Your task to perform on an android device: open the mobile data screen to see how much data has been used Image 0: 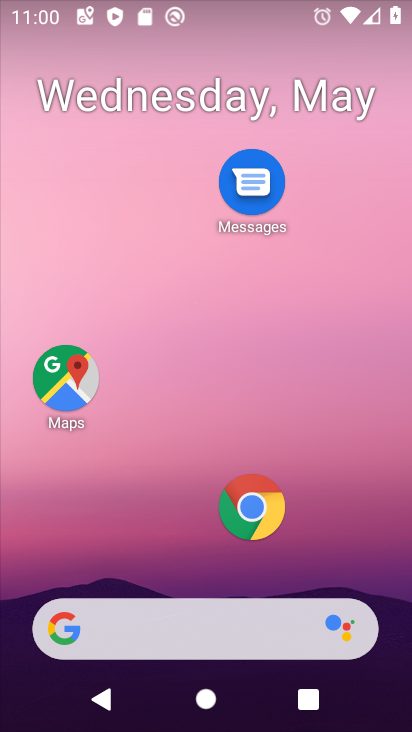
Step 0: press home button
Your task to perform on an android device: open the mobile data screen to see how much data has been used Image 1: 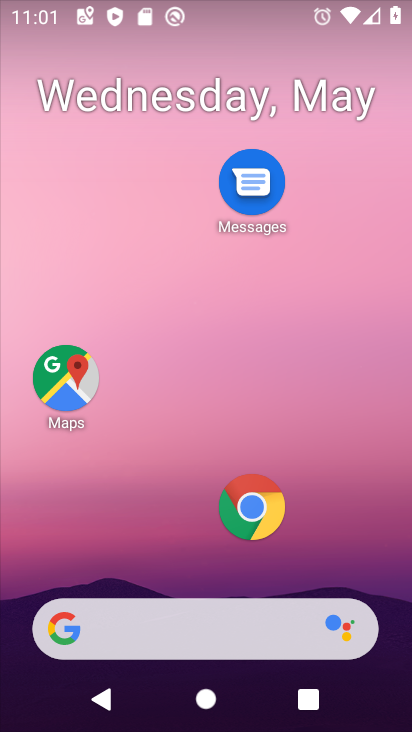
Step 1: drag from (185, 573) to (208, 313)
Your task to perform on an android device: open the mobile data screen to see how much data has been used Image 2: 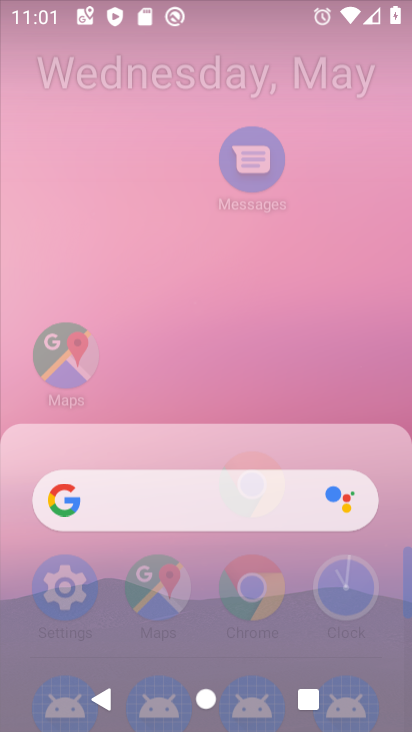
Step 2: drag from (210, 172) to (204, 72)
Your task to perform on an android device: open the mobile data screen to see how much data has been used Image 3: 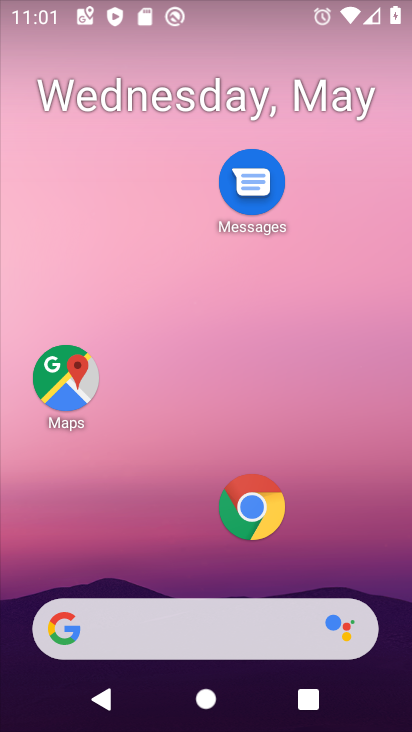
Step 3: drag from (206, 582) to (196, 35)
Your task to perform on an android device: open the mobile data screen to see how much data has been used Image 4: 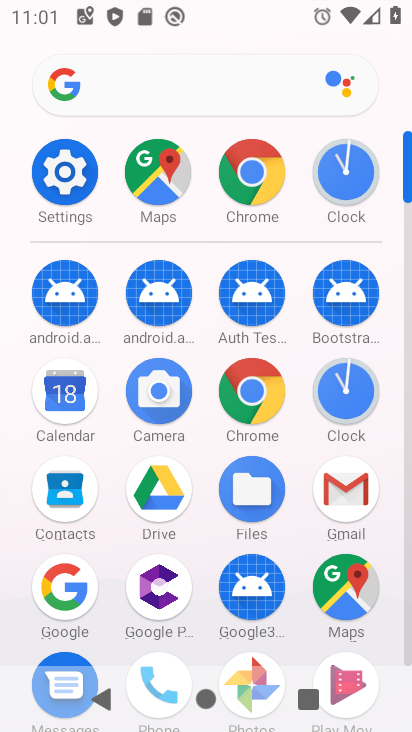
Step 4: click (64, 171)
Your task to perform on an android device: open the mobile data screen to see how much data has been used Image 5: 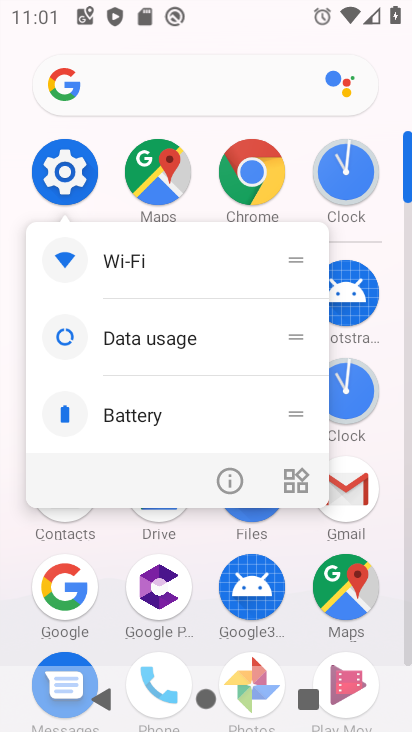
Step 5: click (58, 166)
Your task to perform on an android device: open the mobile data screen to see how much data has been used Image 6: 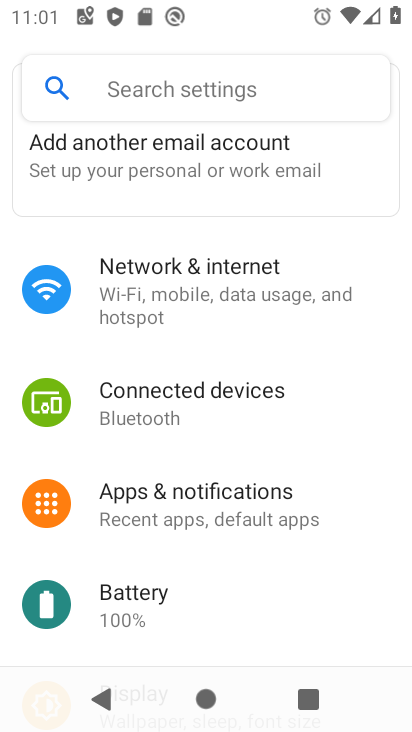
Step 6: click (198, 312)
Your task to perform on an android device: open the mobile data screen to see how much data has been used Image 7: 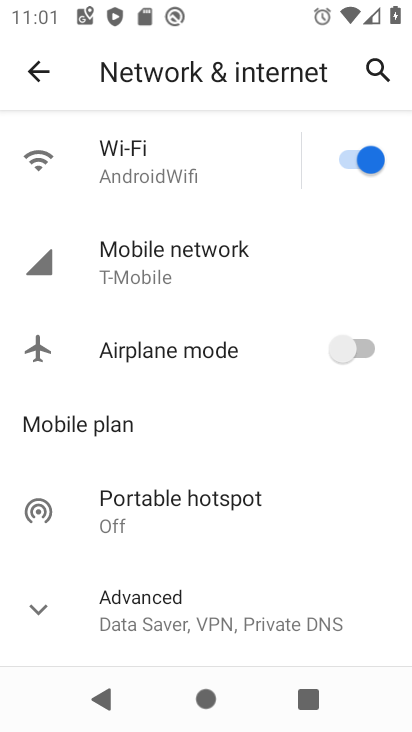
Step 7: click (187, 267)
Your task to perform on an android device: open the mobile data screen to see how much data has been used Image 8: 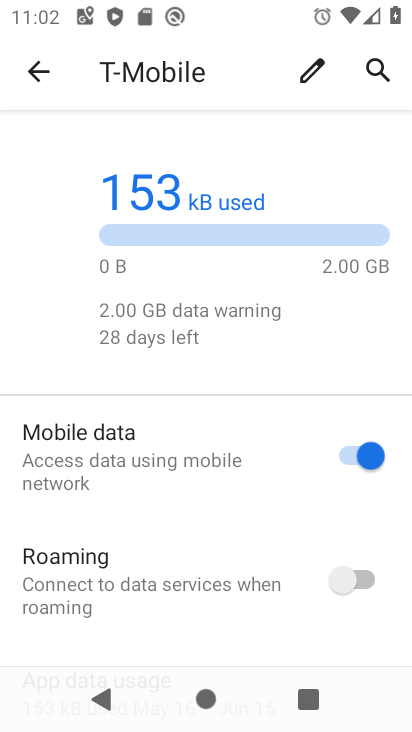
Step 8: drag from (177, 495) to (196, 271)
Your task to perform on an android device: open the mobile data screen to see how much data has been used Image 9: 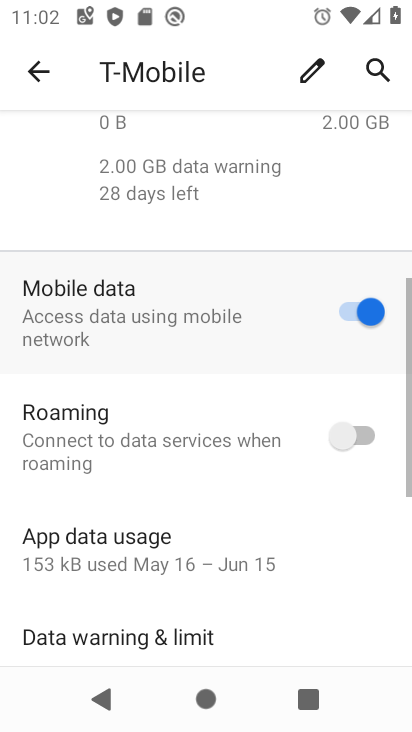
Step 9: click (216, 188)
Your task to perform on an android device: open the mobile data screen to see how much data has been used Image 10: 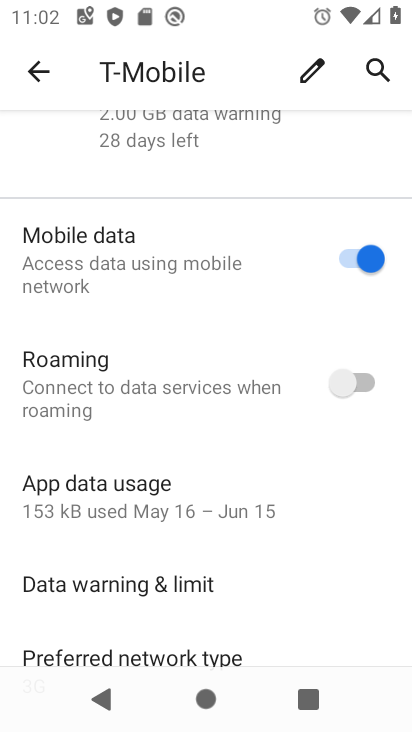
Step 10: click (190, 488)
Your task to perform on an android device: open the mobile data screen to see how much data has been used Image 11: 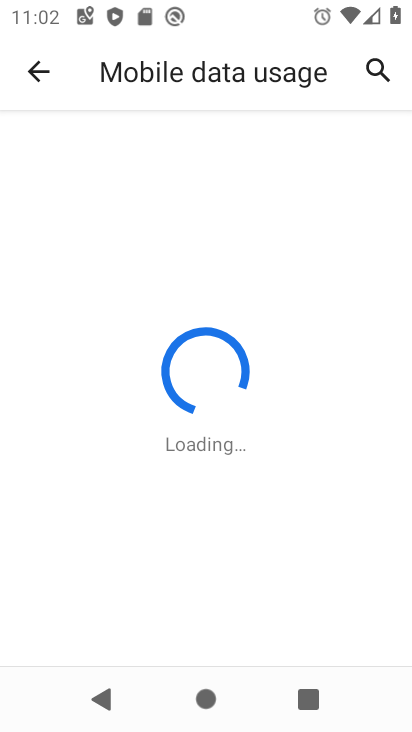
Step 11: task complete